Your task to perform on an android device: Search for seafood restaurants on Google Maps Image 0: 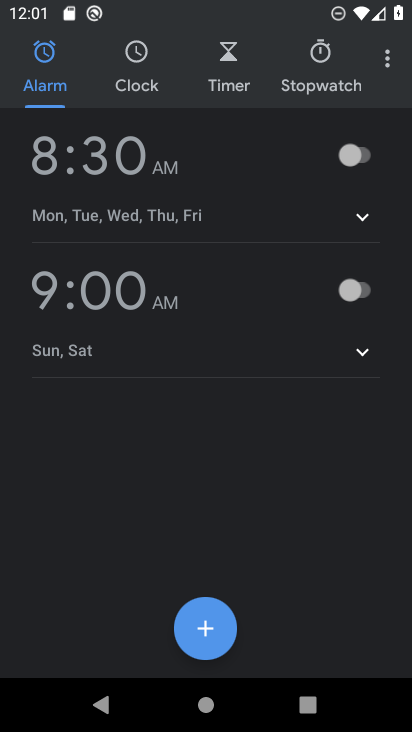
Step 0: press home button
Your task to perform on an android device: Search for seafood restaurants on Google Maps Image 1: 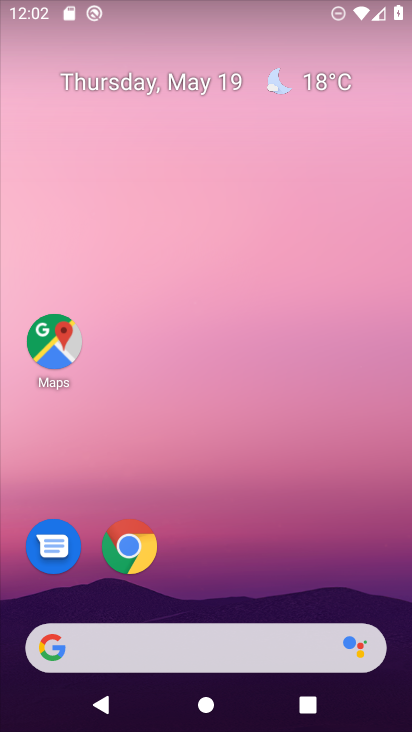
Step 1: drag from (225, 710) to (227, 137)
Your task to perform on an android device: Search for seafood restaurants on Google Maps Image 2: 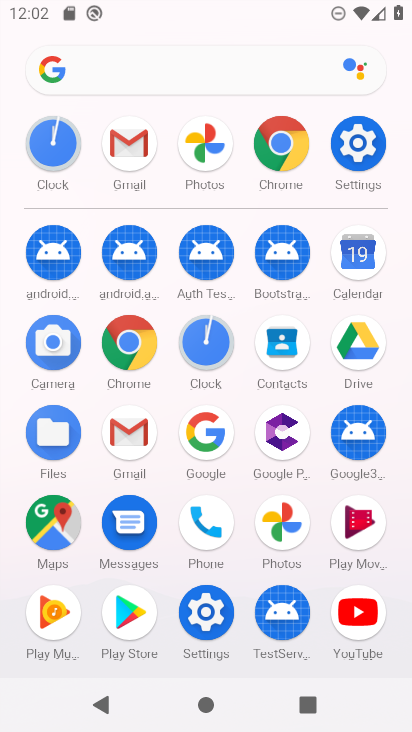
Step 2: click (38, 514)
Your task to perform on an android device: Search for seafood restaurants on Google Maps Image 3: 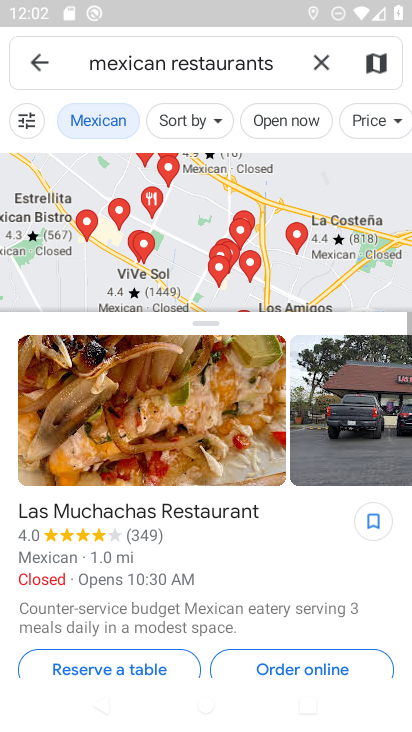
Step 3: click (322, 59)
Your task to perform on an android device: Search for seafood restaurants on Google Maps Image 4: 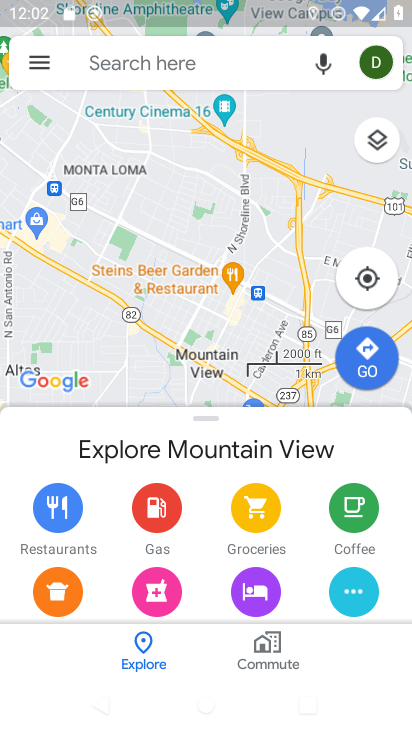
Step 4: click (152, 67)
Your task to perform on an android device: Search for seafood restaurants on Google Maps Image 5: 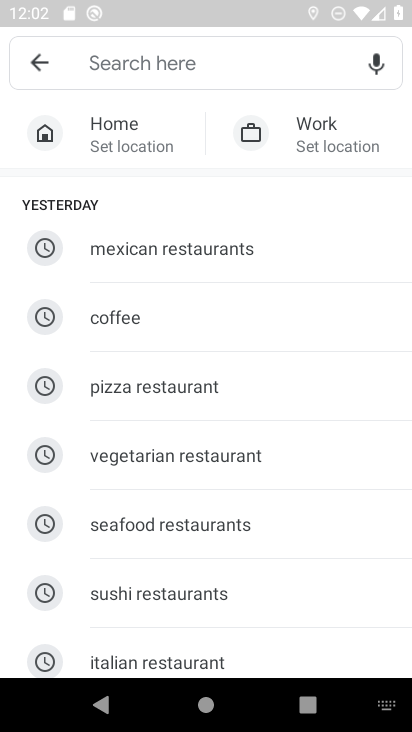
Step 5: type "seafood restaurants"
Your task to perform on an android device: Search for seafood restaurants on Google Maps Image 6: 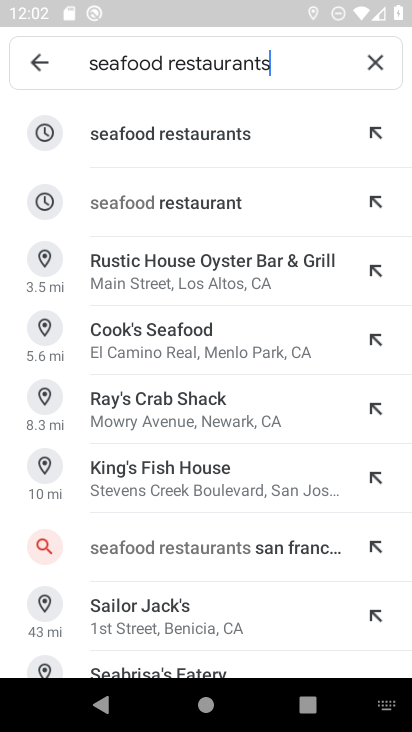
Step 6: click (169, 131)
Your task to perform on an android device: Search for seafood restaurants on Google Maps Image 7: 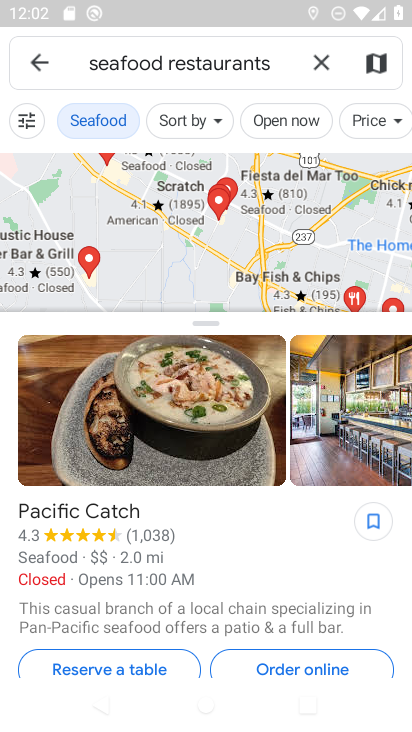
Step 7: task complete